Your task to perform on an android device: toggle airplane mode Image 0: 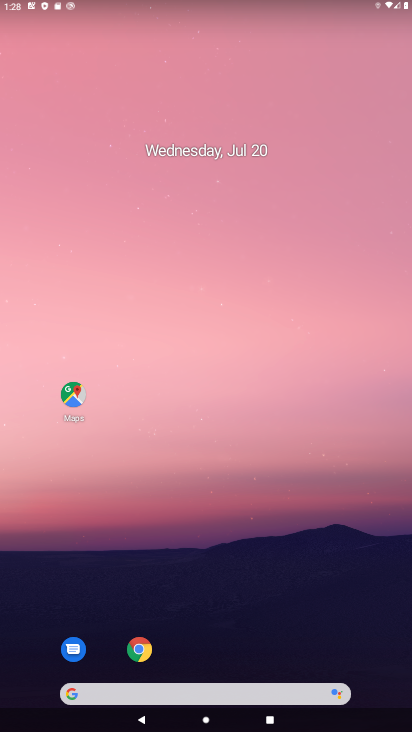
Step 0: press home button
Your task to perform on an android device: toggle airplane mode Image 1: 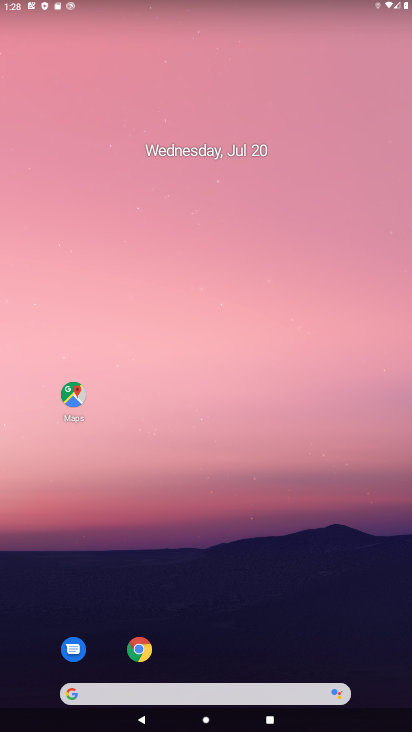
Step 1: drag from (292, 621) to (295, 40)
Your task to perform on an android device: toggle airplane mode Image 2: 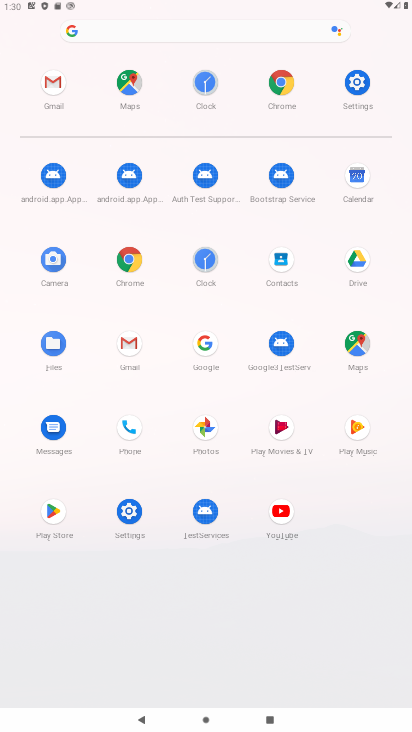
Step 2: drag from (368, 40) to (337, 385)
Your task to perform on an android device: toggle airplane mode Image 3: 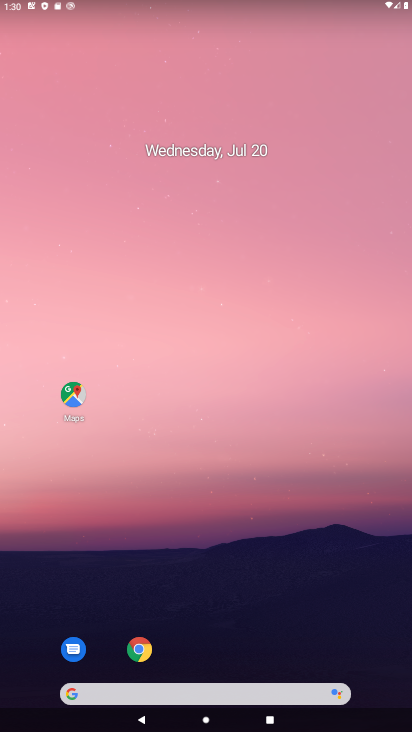
Step 3: drag from (388, 8) to (323, 471)
Your task to perform on an android device: toggle airplane mode Image 4: 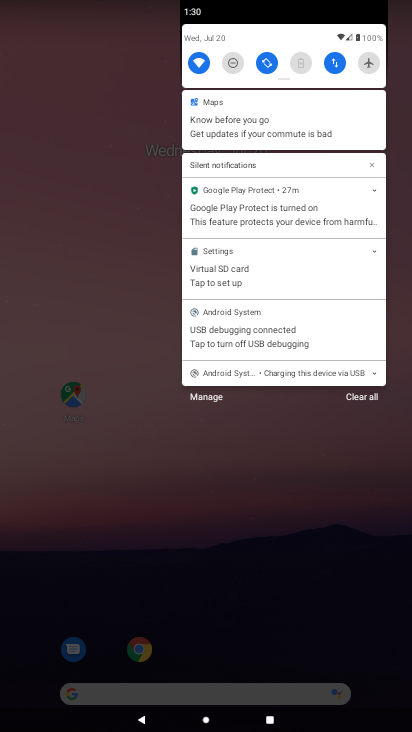
Step 4: click (367, 70)
Your task to perform on an android device: toggle airplane mode Image 5: 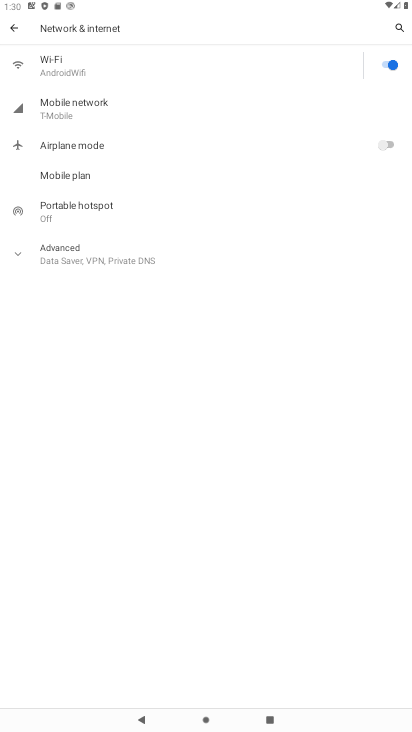
Step 5: task complete